Your task to perform on an android device: Find coffee shops on Maps Image 0: 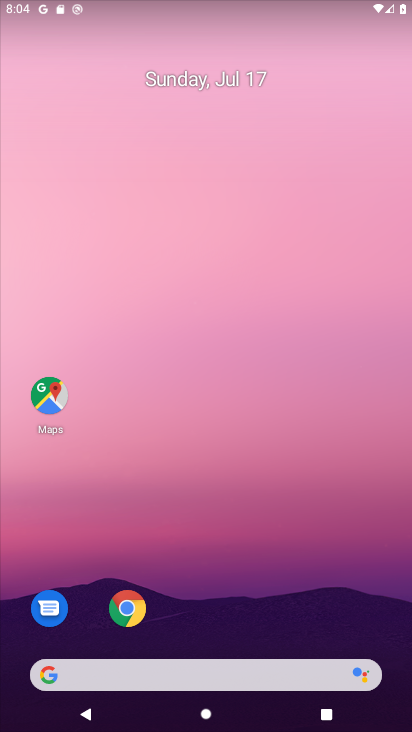
Step 0: click (40, 388)
Your task to perform on an android device: Find coffee shops on Maps Image 1: 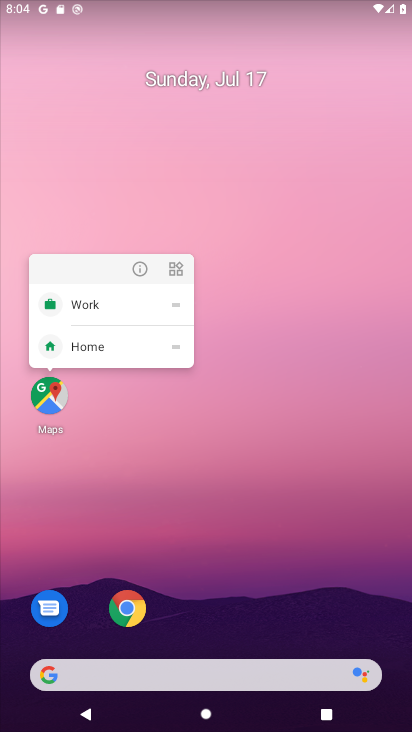
Step 1: click (40, 388)
Your task to perform on an android device: Find coffee shops on Maps Image 2: 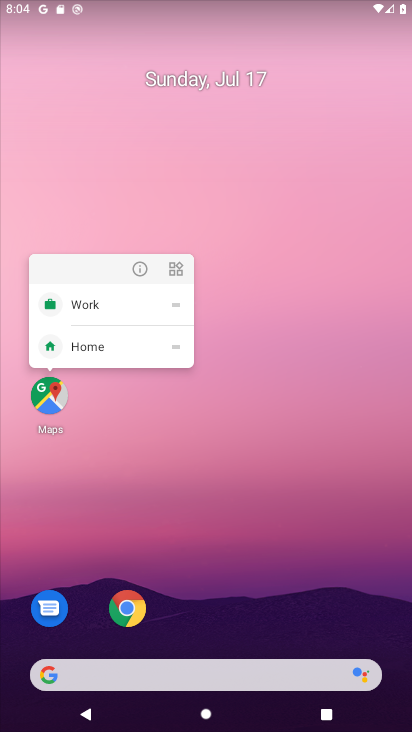
Step 2: click (51, 395)
Your task to perform on an android device: Find coffee shops on Maps Image 3: 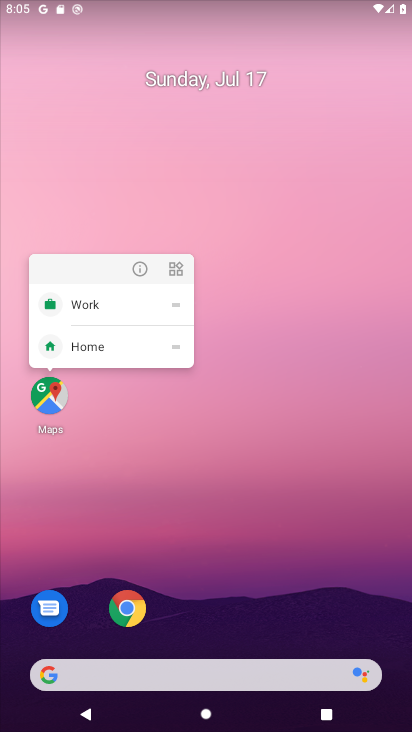
Step 3: click (59, 401)
Your task to perform on an android device: Find coffee shops on Maps Image 4: 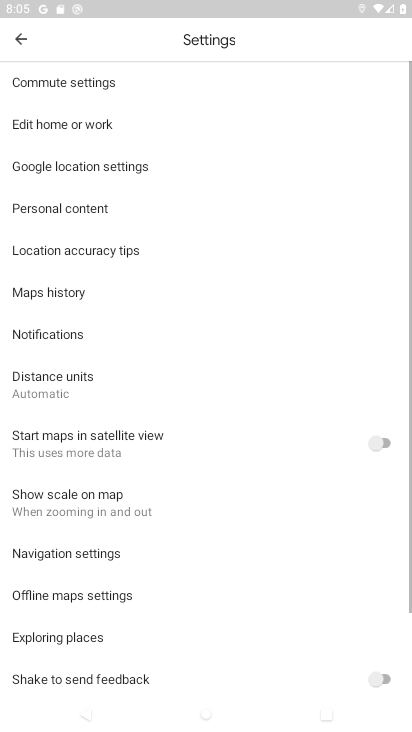
Step 4: click (26, 38)
Your task to perform on an android device: Find coffee shops on Maps Image 5: 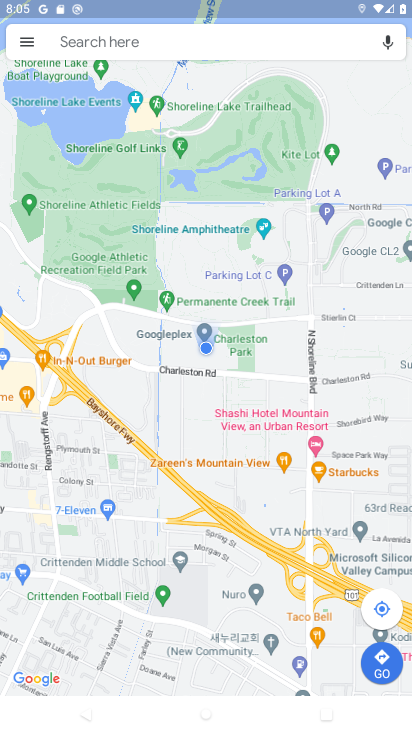
Step 5: click (161, 47)
Your task to perform on an android device: Find coffee shops on Maps Image 6: 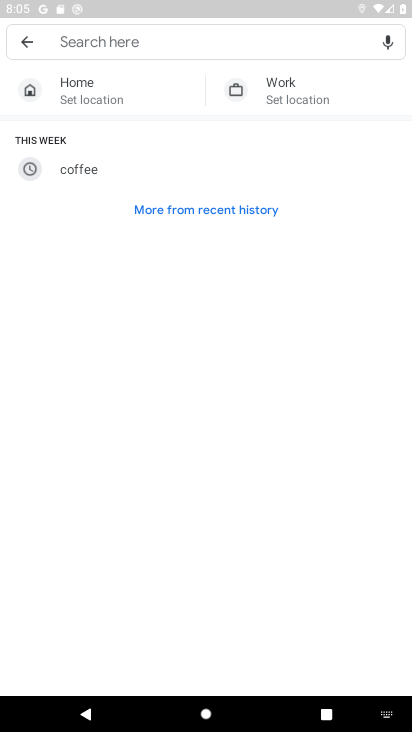
Step 6: click (86, 164)
Your task to perform on an android device: Find coffee shops on Maps Image 7: 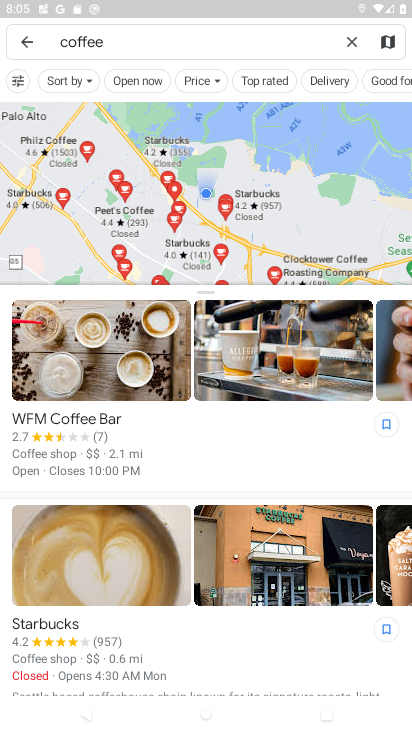
Step 7: task complete